Your task to perform on an android device: change notification settings in the gmail app Image 0: 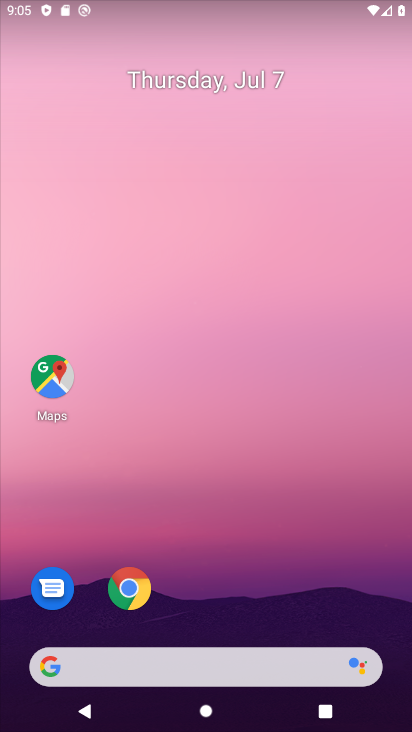
Step 0: click (138, 251)
Your task to perform on an android device: change notification settings in the gmail app Image 1: 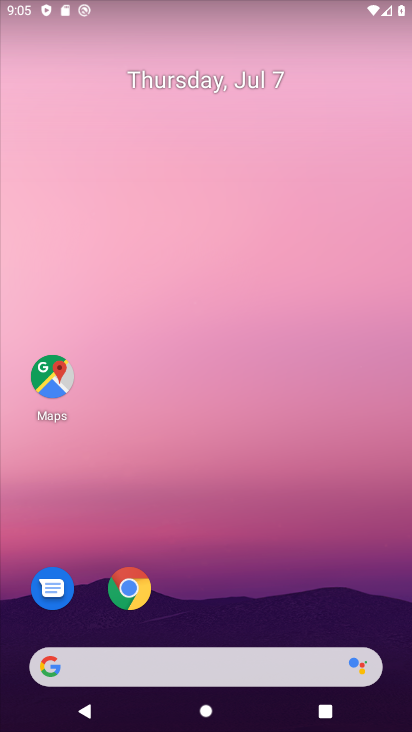
Step 1: drag from (274, 629) to (130, 114)
Your task to perform on an android device: change notification settings in the gmail app Image 2: 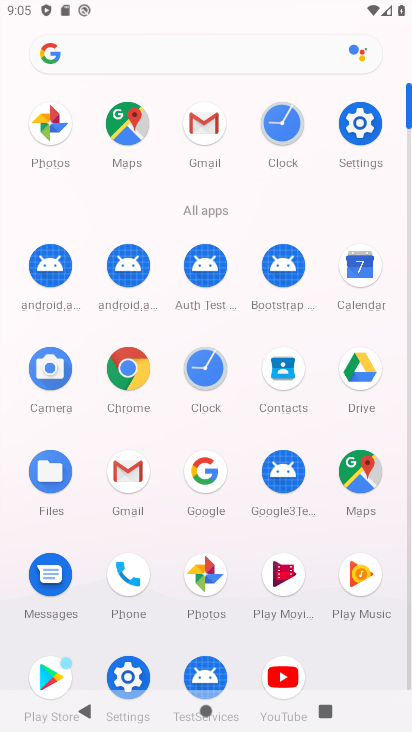
Step 2: click (197, 134)
Your task to perform on an android device: change notification settings in the gmail app Image 3: 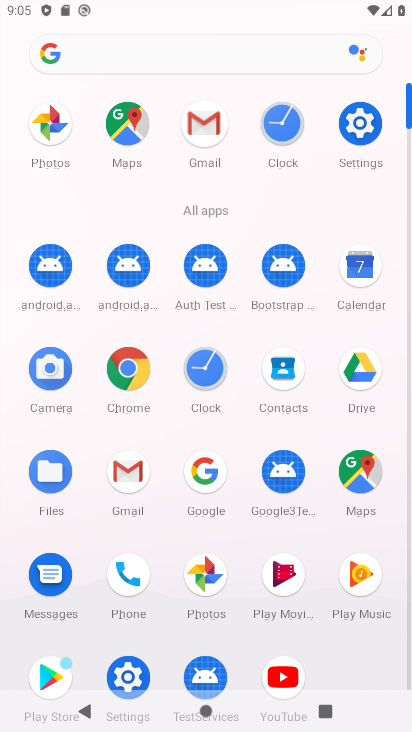
Step 3: click (197, 131)
Your task to perform on an android device: change notification settings in the gmail app Image 4: 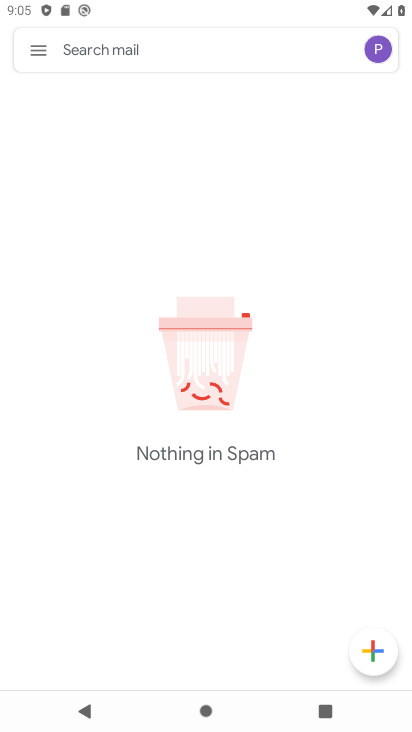
Step 4: click (42, 52)
Your task to perform on an android device: change notification settings in the gmail app Image 5: 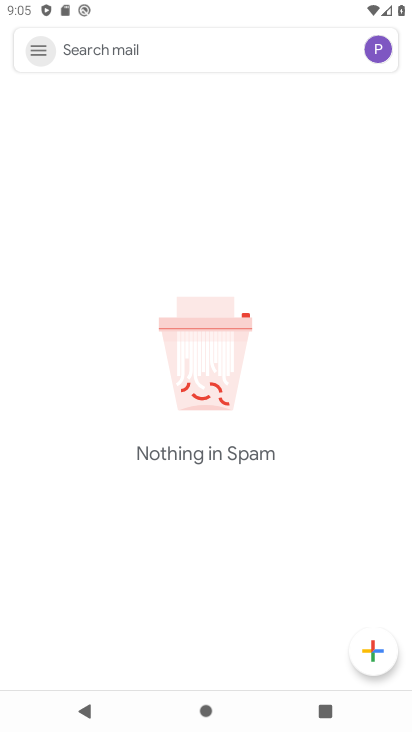
Step 5: click (39, 54)
Your task to perform on an android device: change notification settings in the gmail app Image 6: 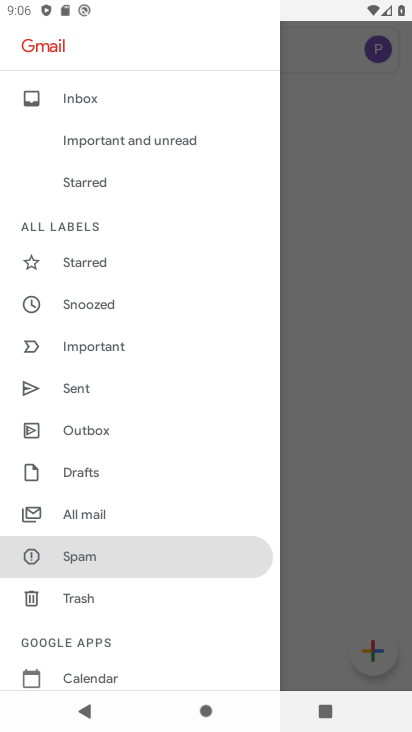
Step 6: drag from (116, 582) to (51, 282)
Your task to perform on an android device: change notification settings in the gmail app Image 7: 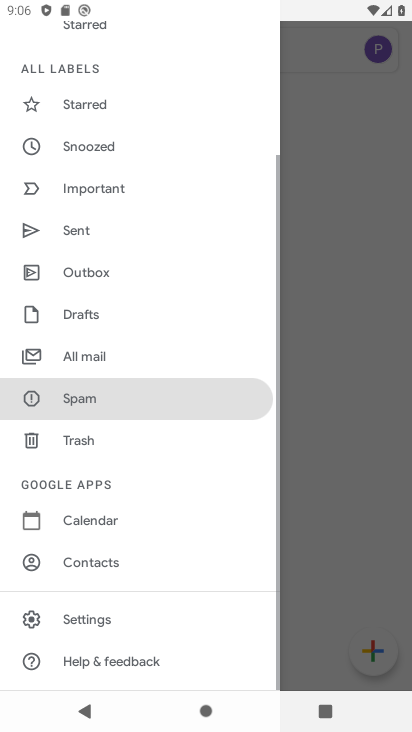
Step 7: drag from (124, 494) to (130, 174)
Your task to perform on an android device: change notification settings in the gmail app Image 8: 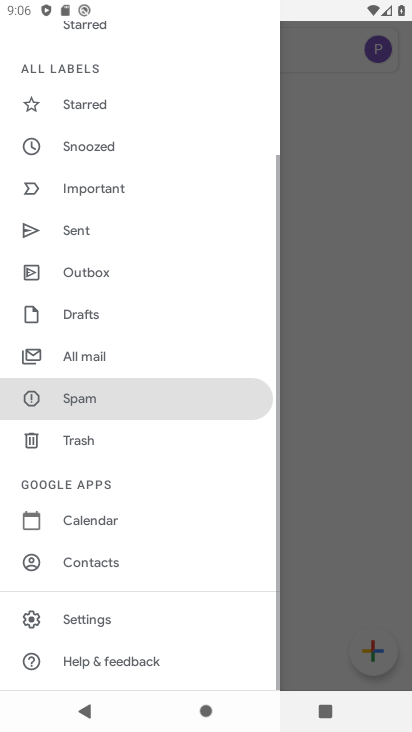
Step 8: click (87, 609)
Your task to perform on an android device: change notification settings in the gmail app Image 9: 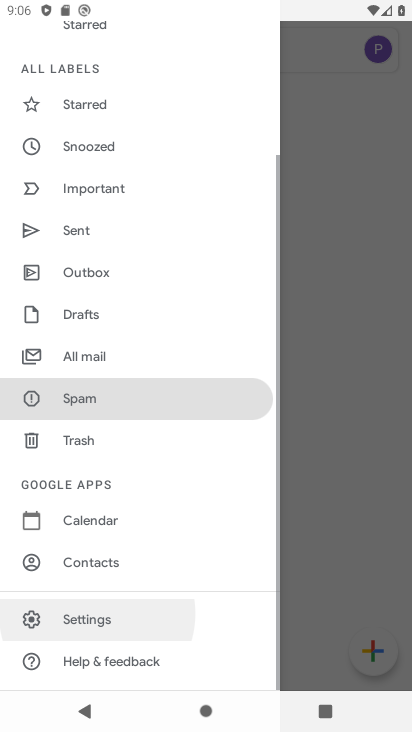
Step 9: click (84, 610)
Your task to perform on an android device: change notification settings in the gmail app Image 10: 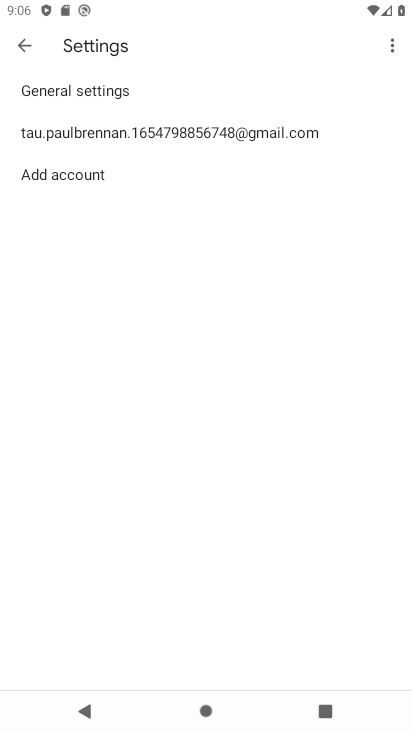
Step 10: click (102, 129)
Your task to perform on an android device: change notification settings in the gmail app Image 11: 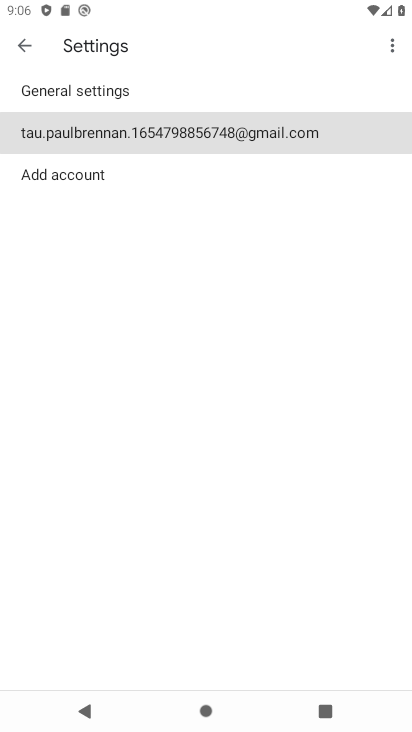
Step 11: click (103, 130)
Your task to perform on an android device: change notification settings in the gmail app Image 12: 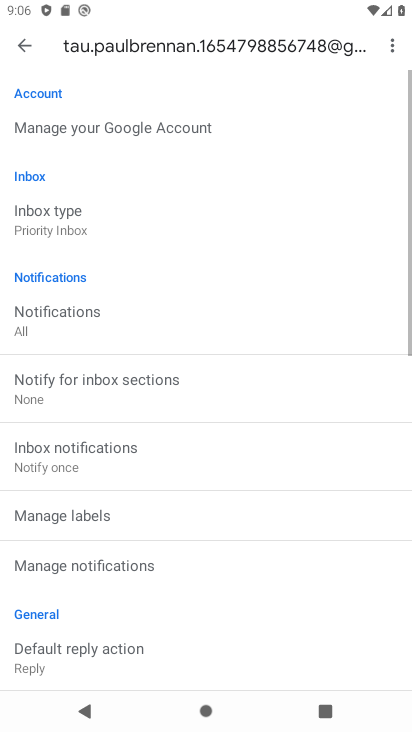
Step 12: drag from (136, 507) to (130, 31)
Your task to perform on an android device: change notification settings in the gmail app Image 13: 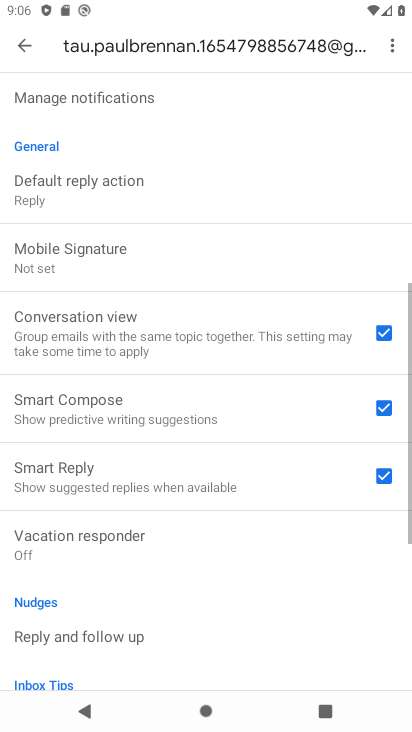
Step 13: drag from (165, 443) to (132, 214)
Your task to perform on an android device: change notification settings in the gmail app Image 14: 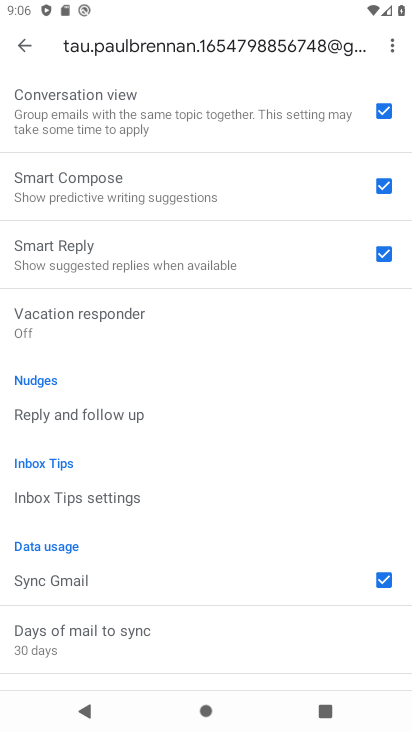
Step 14: drag from (133, 203) to (182, 486)
Your task to perform on an android device: change notification settings in the gmail app Image 15: 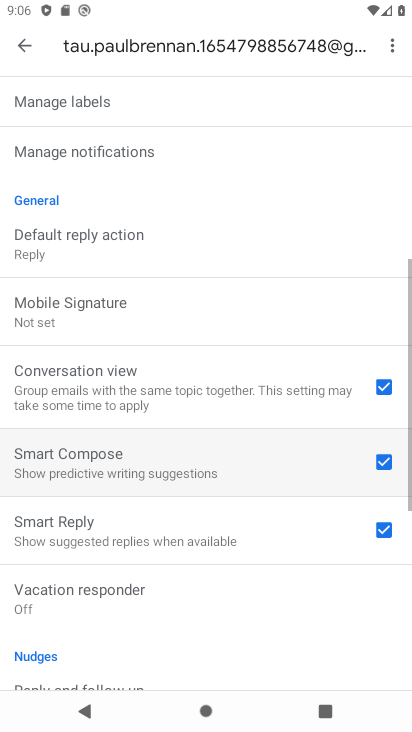
Step 15: drag from (143, 225) to (179, 510)
Your task to perform on an android device: change notification settings in the gmail app Image 16: 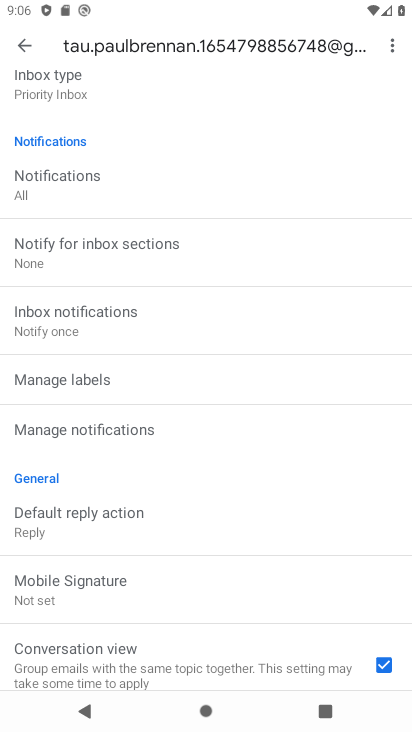
Step 16: click (44, 182)
Your task to perform on an android device: change notification settings in the gmail app Image 17: 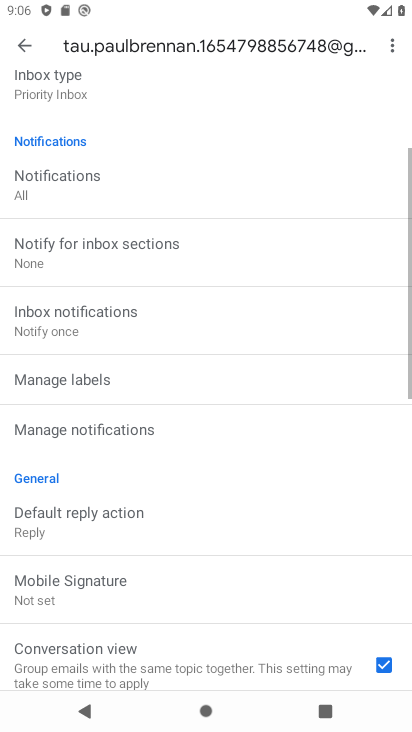
Step 17: click (43, 184)
Your task to perform on an android device: change notification settings in the gmail app Image 18: 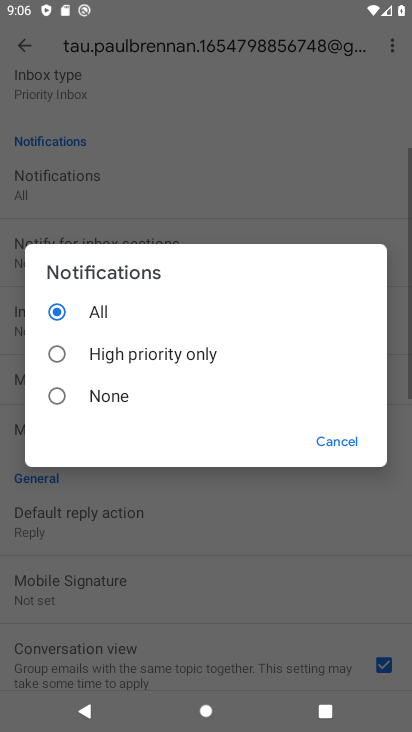
Step 18: click (339, 437)
Your task to perform on an android device: change notification settings in the gmail app Image 19: 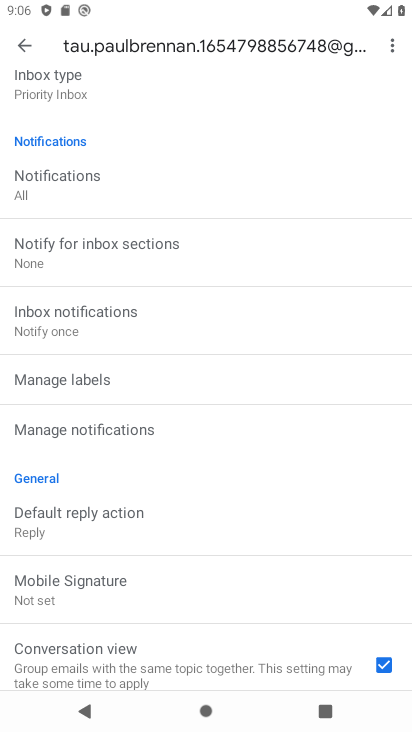
Step 19: click (31, 169)
Your task to perform on an android device: change notification settings in the gmail app Image 20: 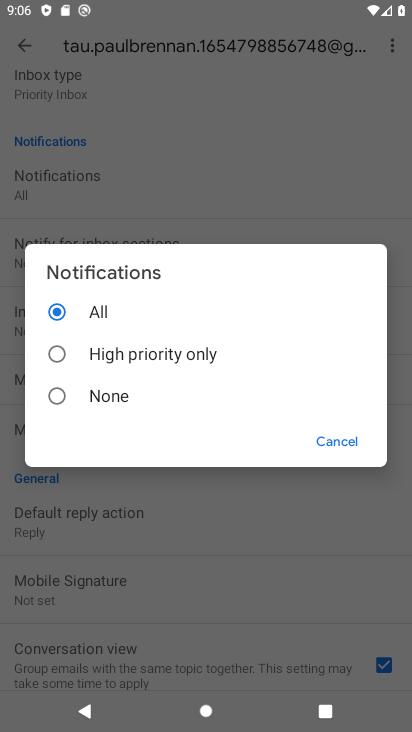
Step 20: click (61, 357)
Your task to perform on an android device: change notification settings in the gmail app Image 21: 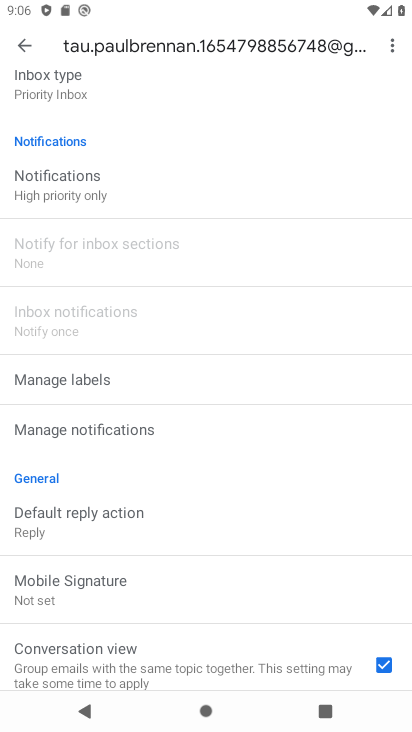
Step 21: task complete